Your task to perform on an android device: turn on improve location accuracy Image 0: 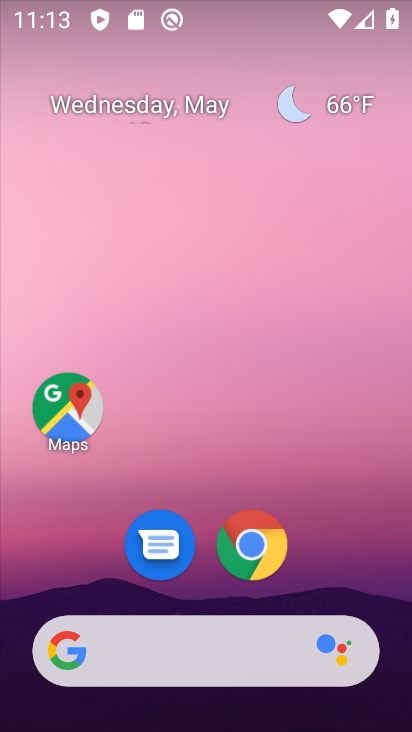
Step 0: drag from (196, 714) to (191, 121)
Your task to perform on an android device: turn on improve location accuracy Image 1: 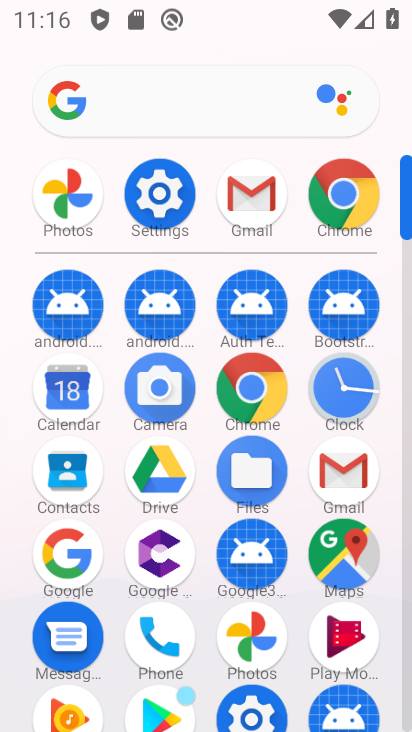
Step 1: click (183, 186)
Your task to perform on an android device: turn on improve location accuracy Image 2: 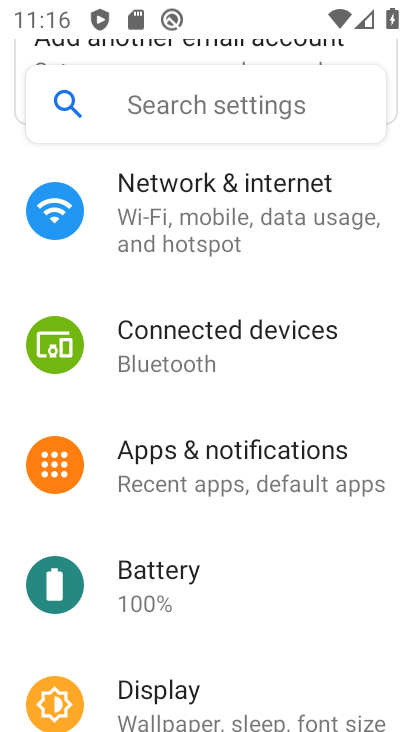
Step 2: drag from (216, 687) to (120, 178)
Your task to perform on an android device: turn on improve location accuracy Image 3: 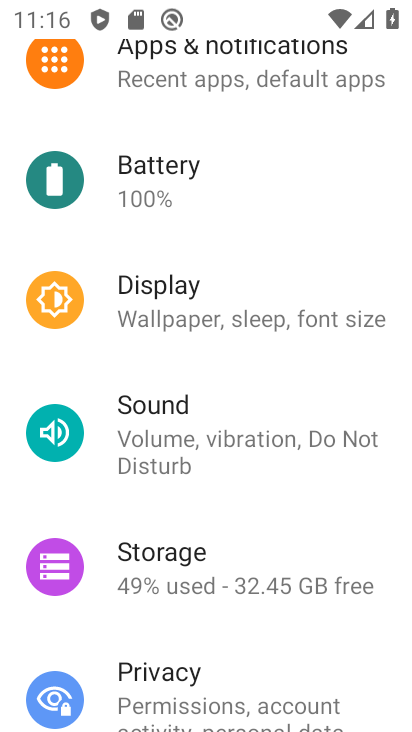
Step 3: drag from (249, 671) to (202, 391)
Your task to perform on an android device: turn on improve location accuracy Image 4: 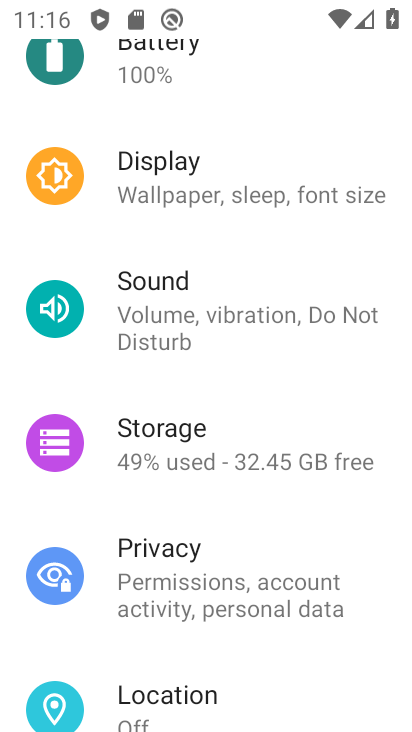
Step 4: click (281, 688)
Your task to perform on an android device: turn on improve location accuracy Image 5: 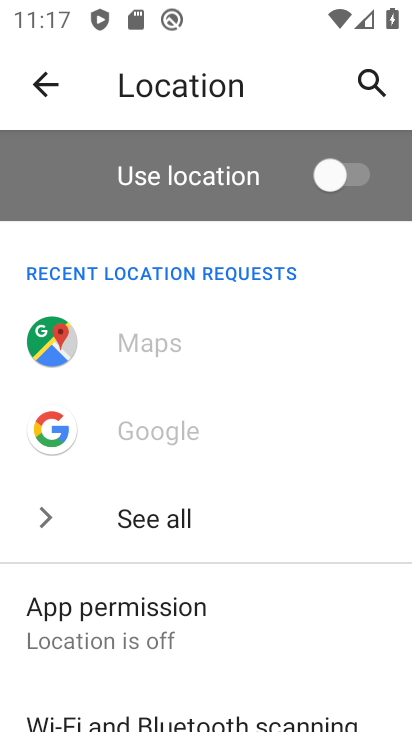
Step 5: drag from (276, 669) to (233, 305)
Your task to perform on an android device: turn on improve location accuracy Image 6: 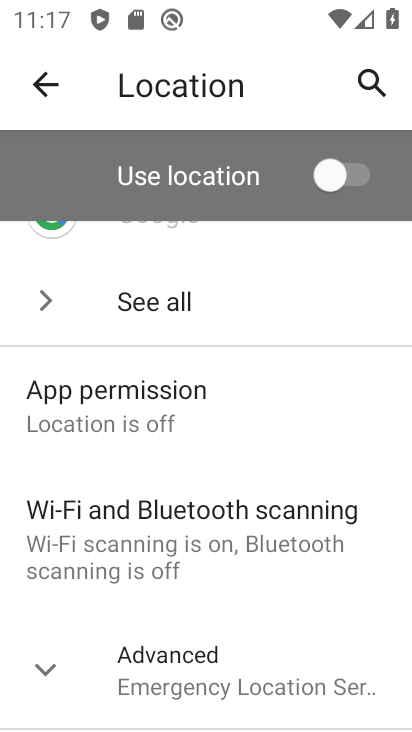
Step 6: click (270, 674)
Your task to perform on an android device: turn on improve location accuracy Image 7: 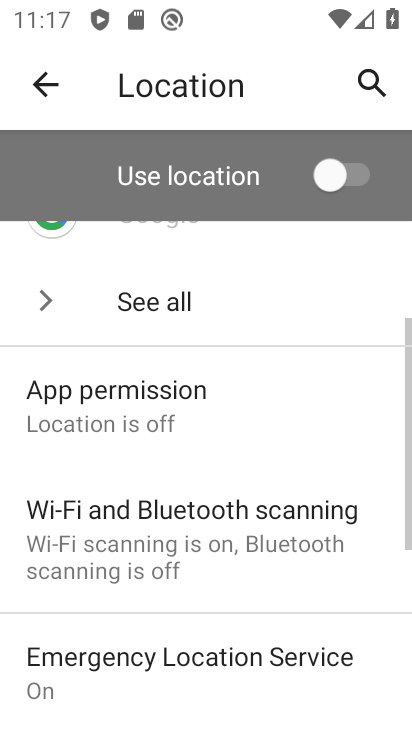
Step 7: drag from (333, 612) to (294, 363)
Your task to perform on an android device: turn on improve location accuracy Image 8: 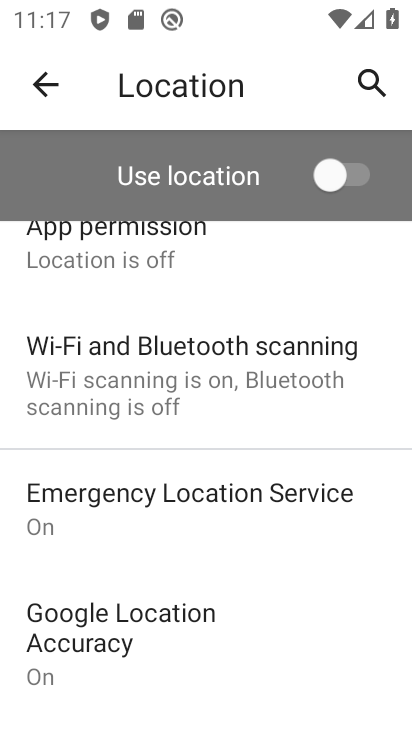
Step 8: click (154, 647)
Your task to perform on an android device: turn on improve location accuracy Image 9: 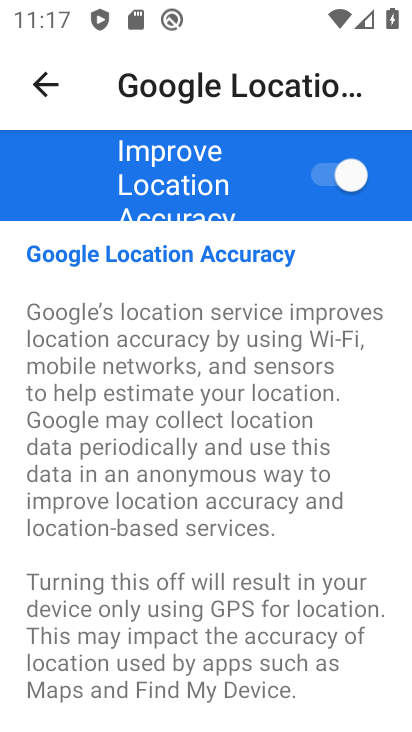
Step 9: task complete